Your task to perform on an android device: open chrome and create a bookmark for the current page Image 0: 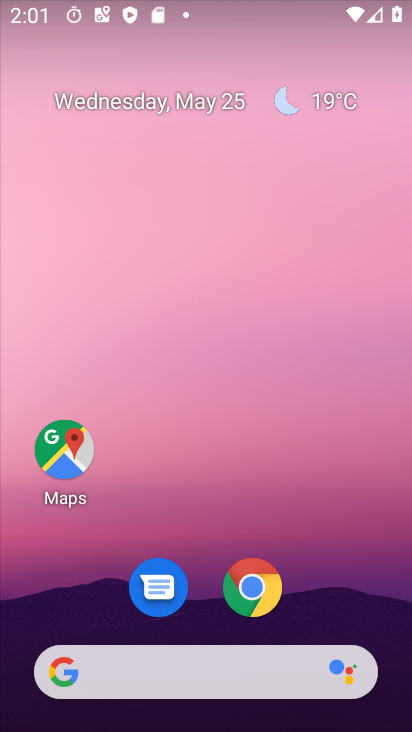
Step 0: click (260, 595)
Your task to perform on an android device: open chrome and create a bookmark for the current page Image 1: 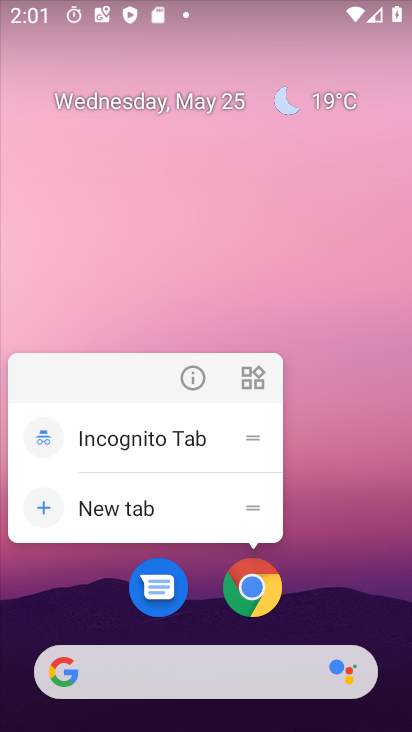
Step 1: click (260, 595)
Your task to perform on an android device: open chrome and create a bookmark for the current page Image 2: 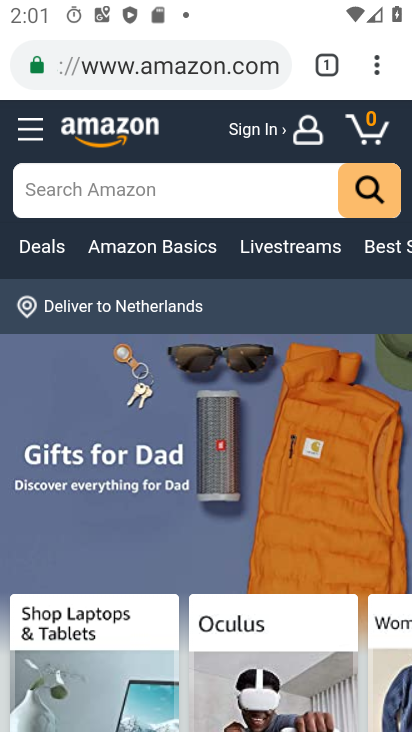
Step 2: click (366, 67)
Your task to perform on an android device: open chrome and create a bookmark for the current page Image 3: 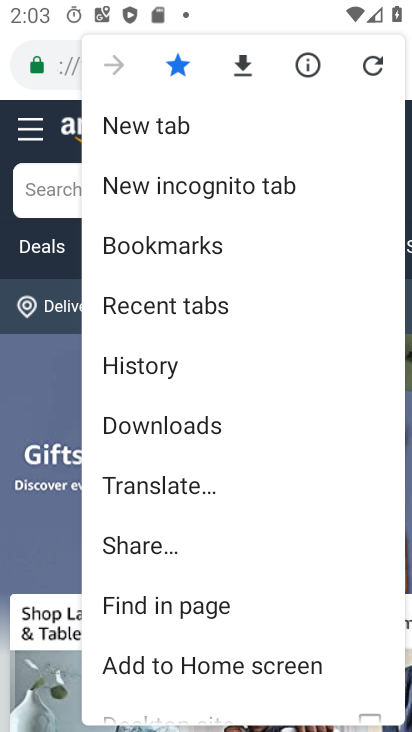
Step 3: task complete